Your task to perform on an android device: set the stopwatch Image 0: 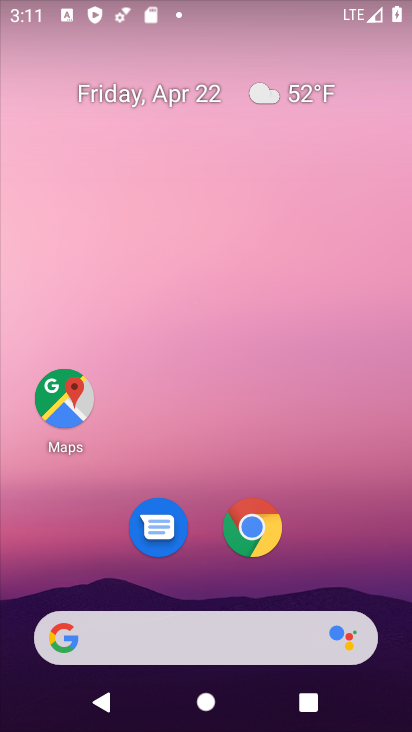
Step 0: drag from (343, 524) to (289, 4)
Your task to perform on an android device: set the stopwatch Image 1: 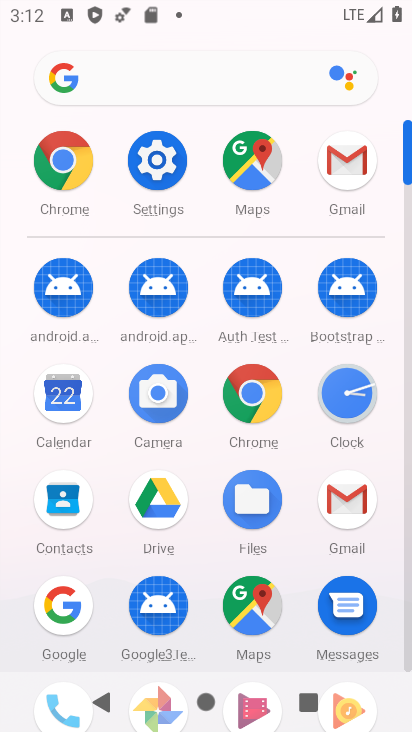
Step 1: click (349, 399)
Your task to perform on an android device: set the stopwatch Image 2: 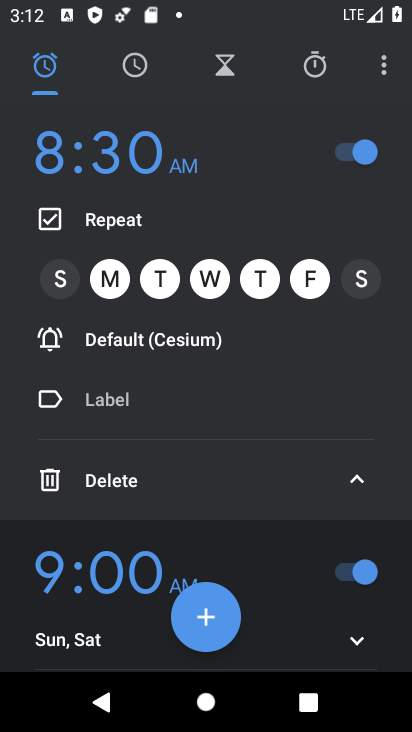
Step 2: click (301, 74)
Your task to perform on an android device: set the stopwatch Image 3: 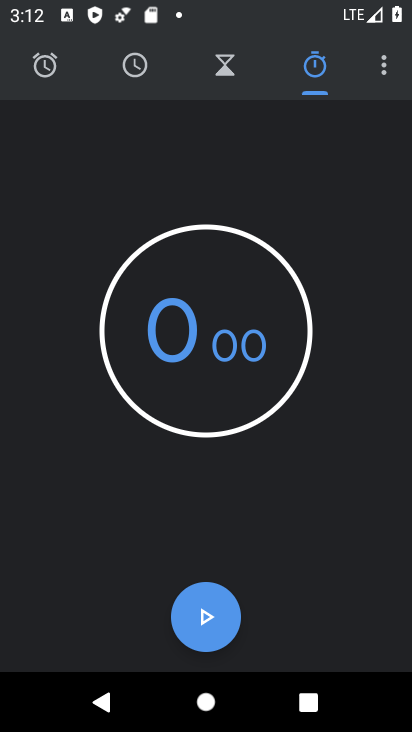
Step 3: click (192, 593)
Your task to perform on an android device: set the stopwatch Image 4: 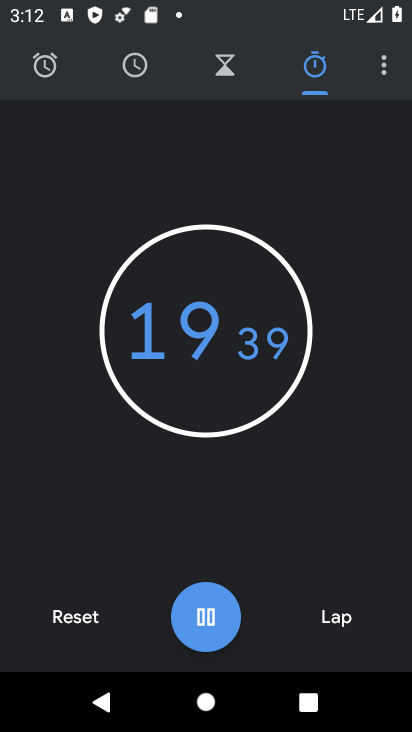
Step 4: task complete